Your task to perform on an android device: What's a good restaurant in San Jose? Image 0: 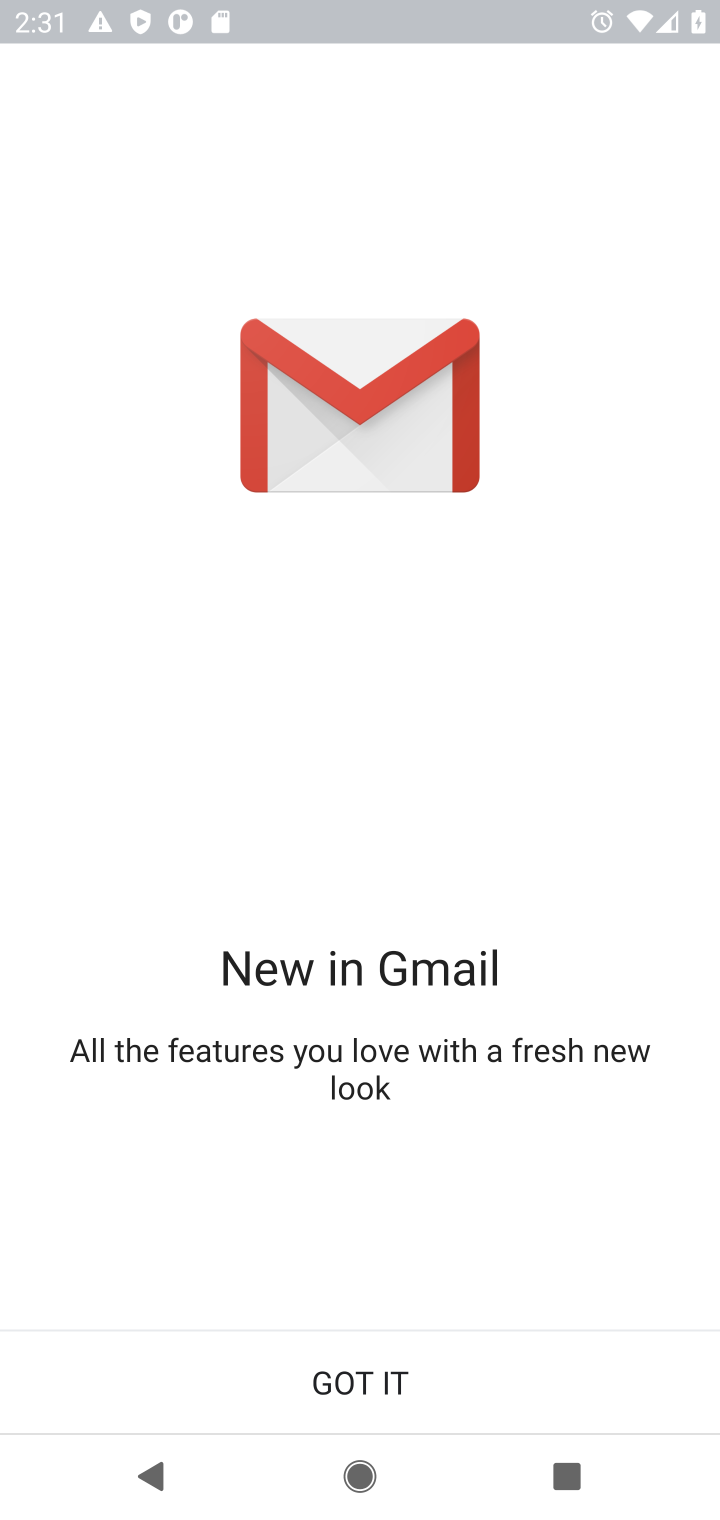
Step 0: press home button
Your task to perform on an android device: What's a good restaurant in San Jose? Image 1: 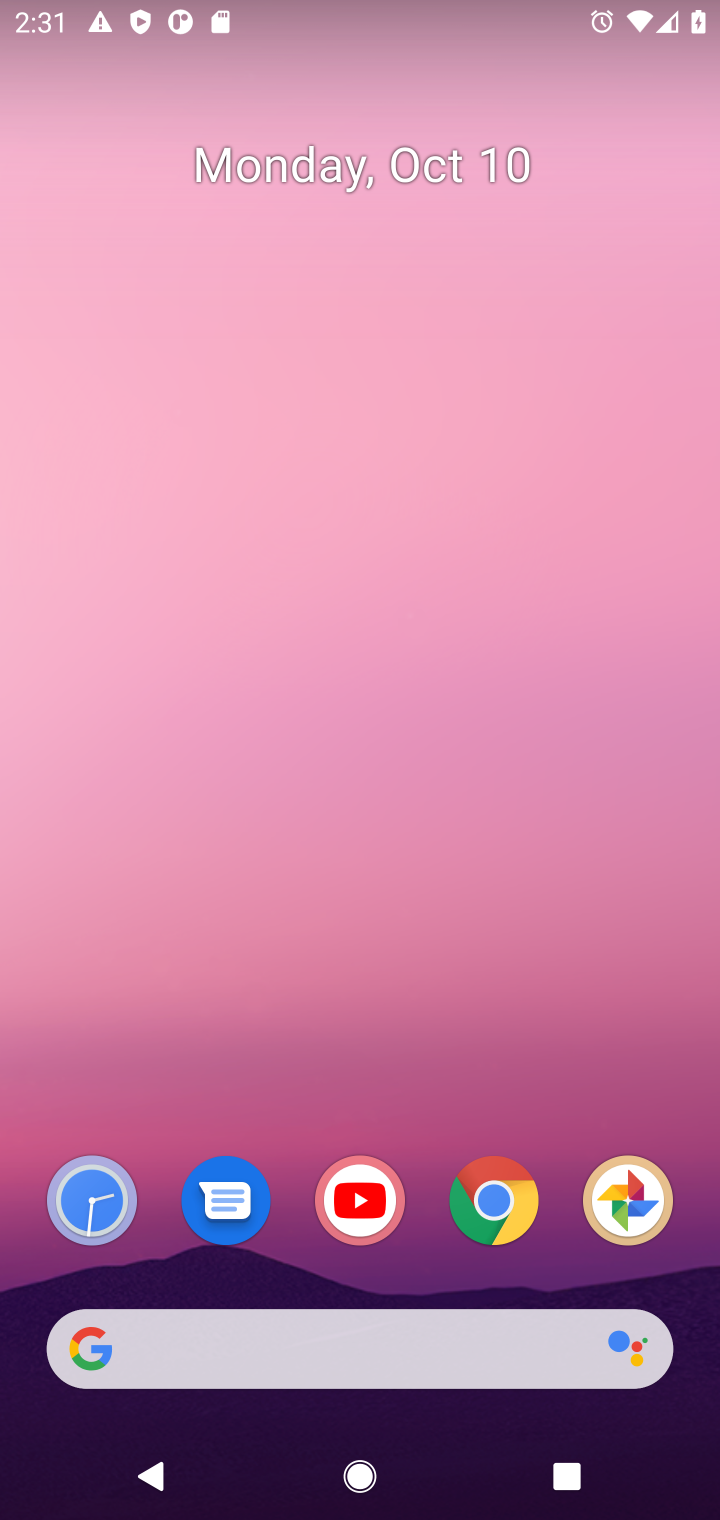
Step 1: click (506, 1189)
Your task to perform on an android device: What's a good restaurant in San Jose? Image 2: 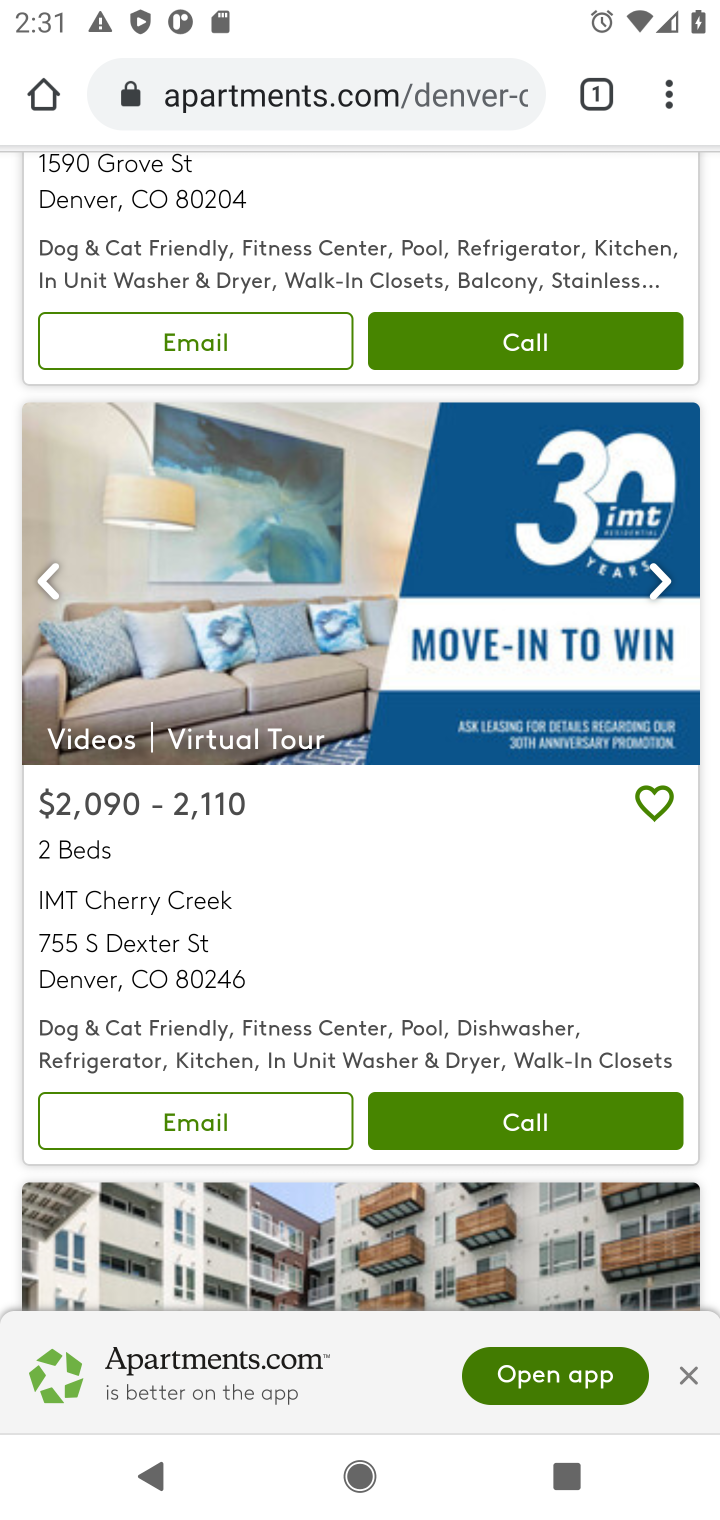
Step 2: click (275, 90)
Your task to perform on an android device: What's a good restaurant in San Jose? Image 3: 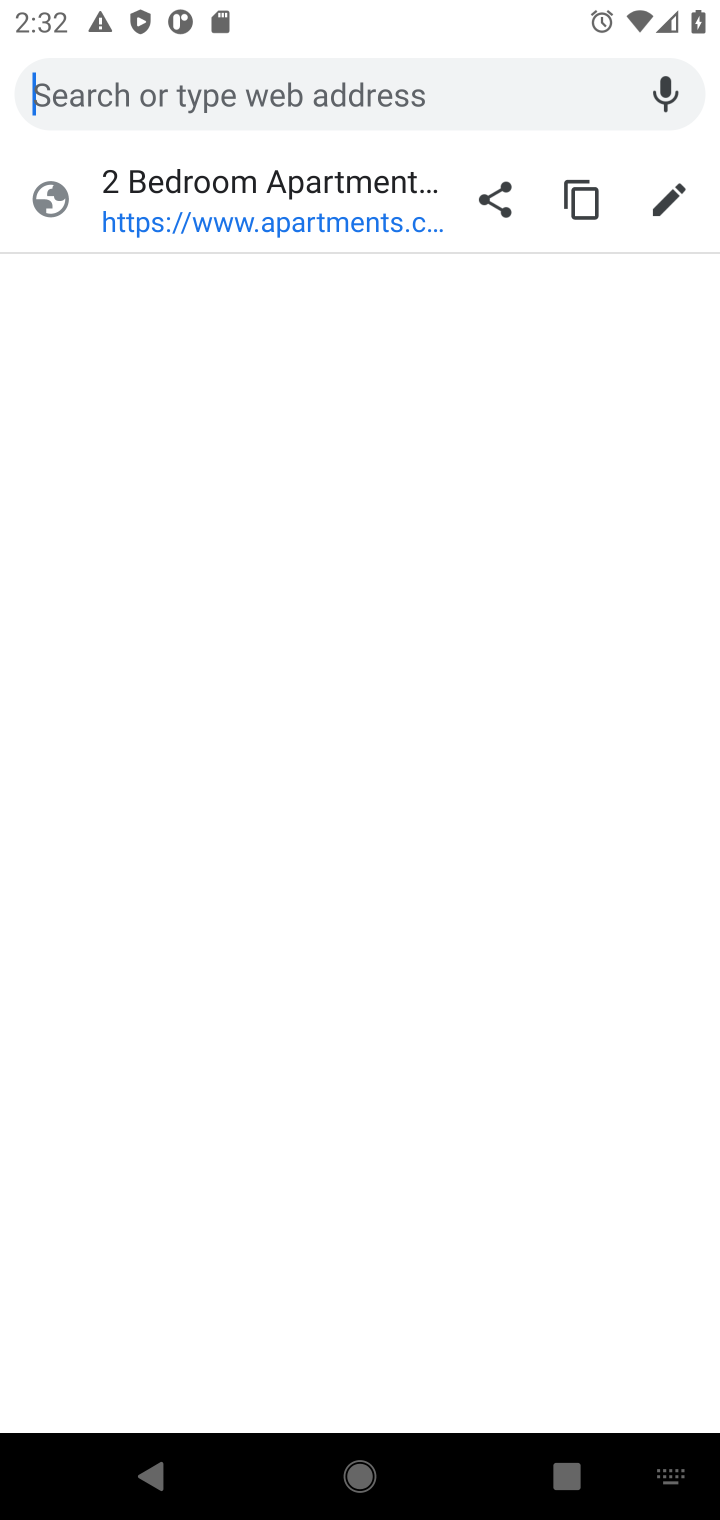
Step 3: type "good restaurant in San Jose"
Your task to perform on an android device: What's a good restaurant in San Jose? Image 4: 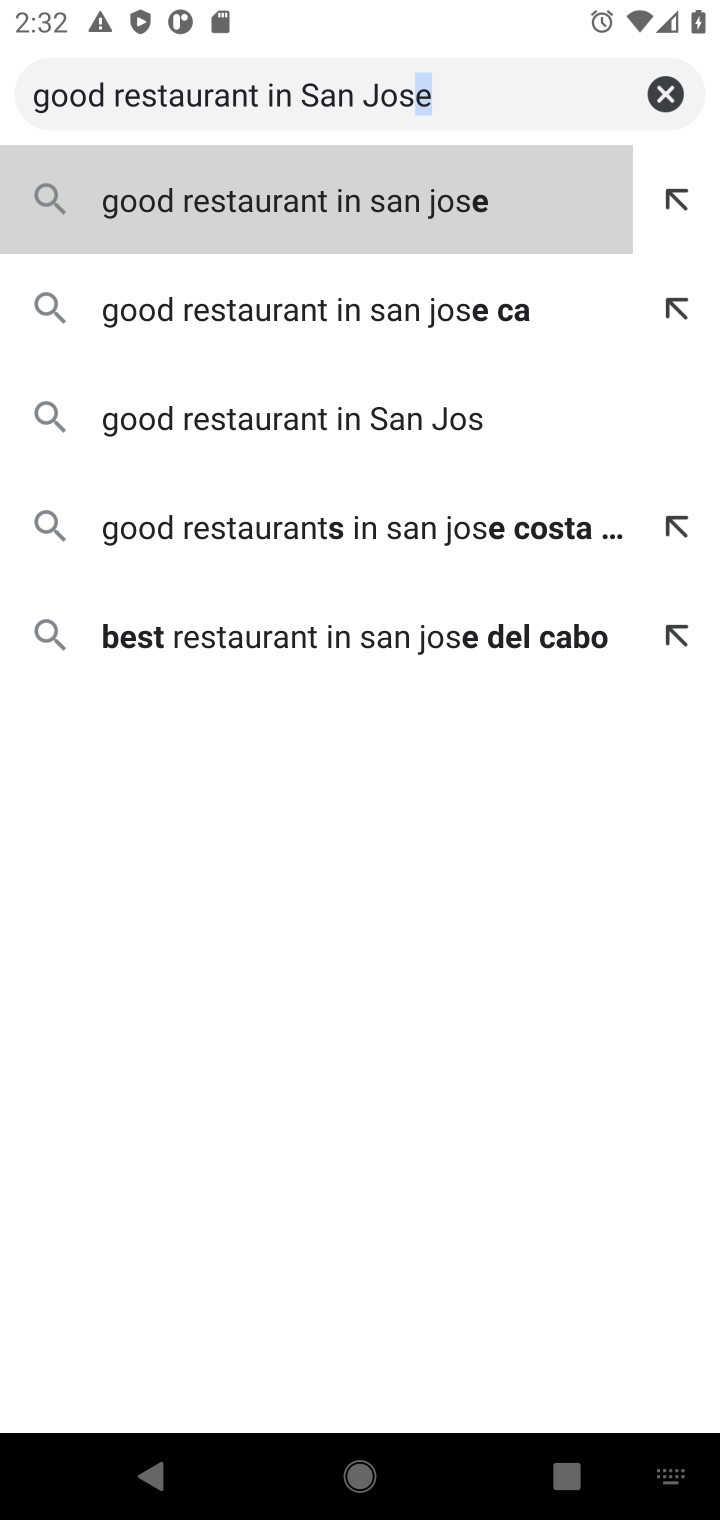
Step 4: type ""
Your task to perform on an android device: What's a good restaurant in San Jose? Image 5: 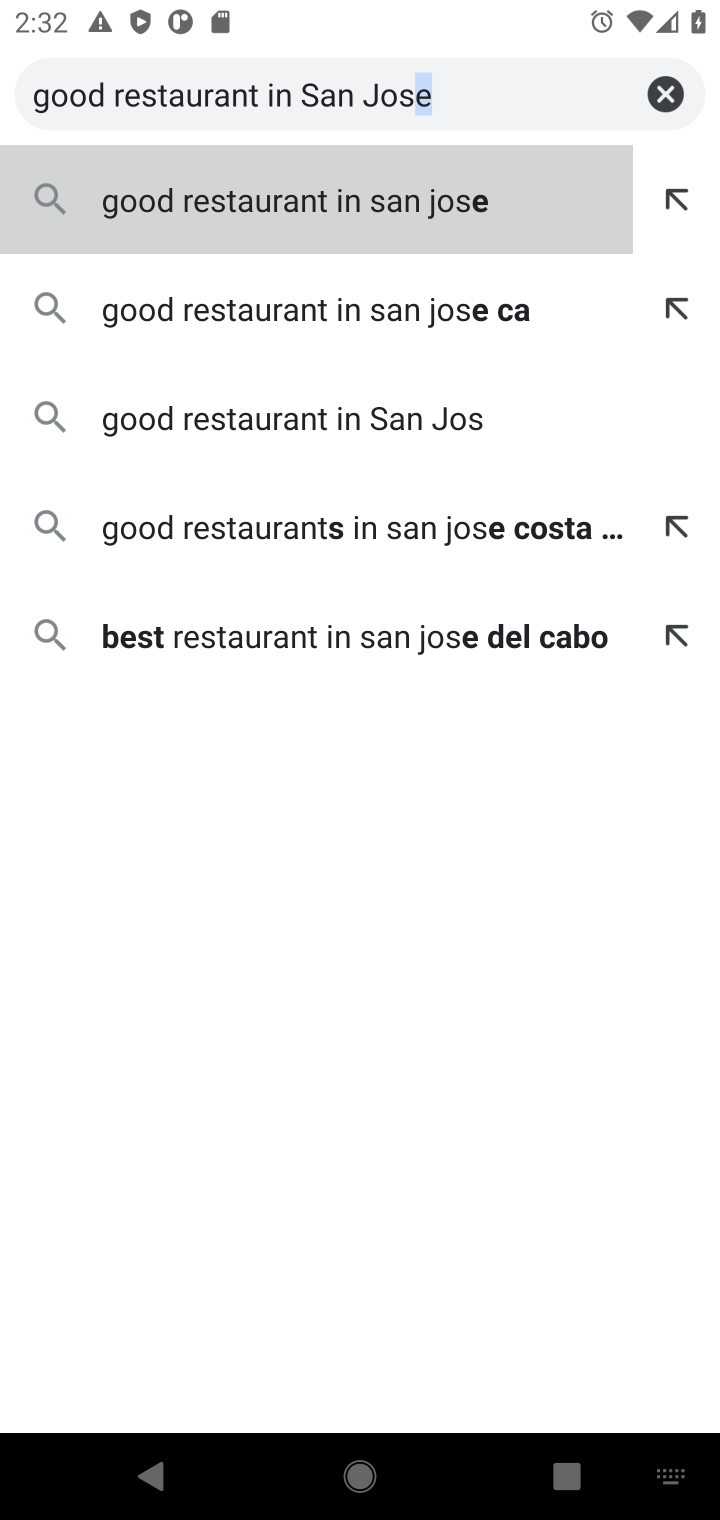
Step 5: click (462, 208)
Your task to perform on an android device: What's a good restaurant in San Jose? Image 6: 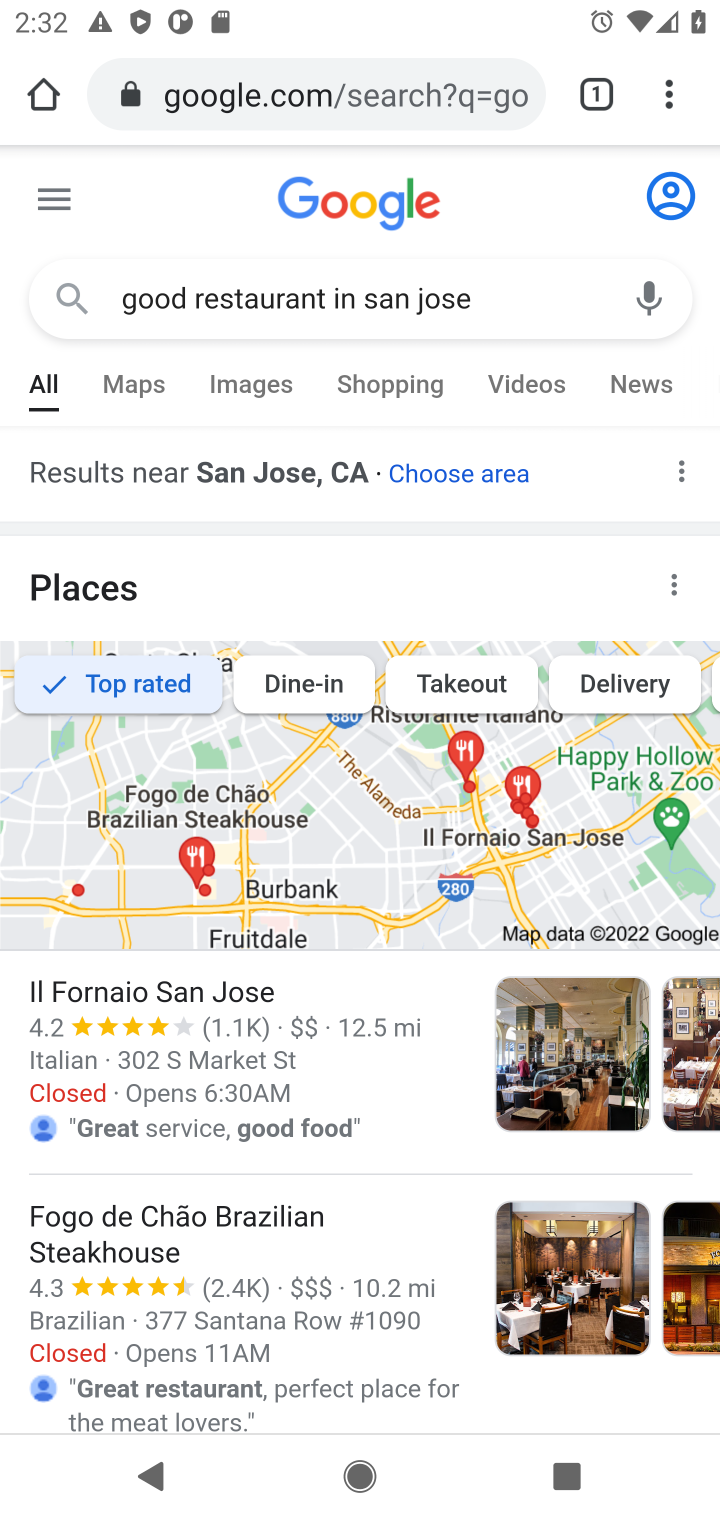
Step 6: drag from (301, 1269) to (258, 181)
Your task to perform on an android device: What's a good restaurant in San Jose? Image 7: 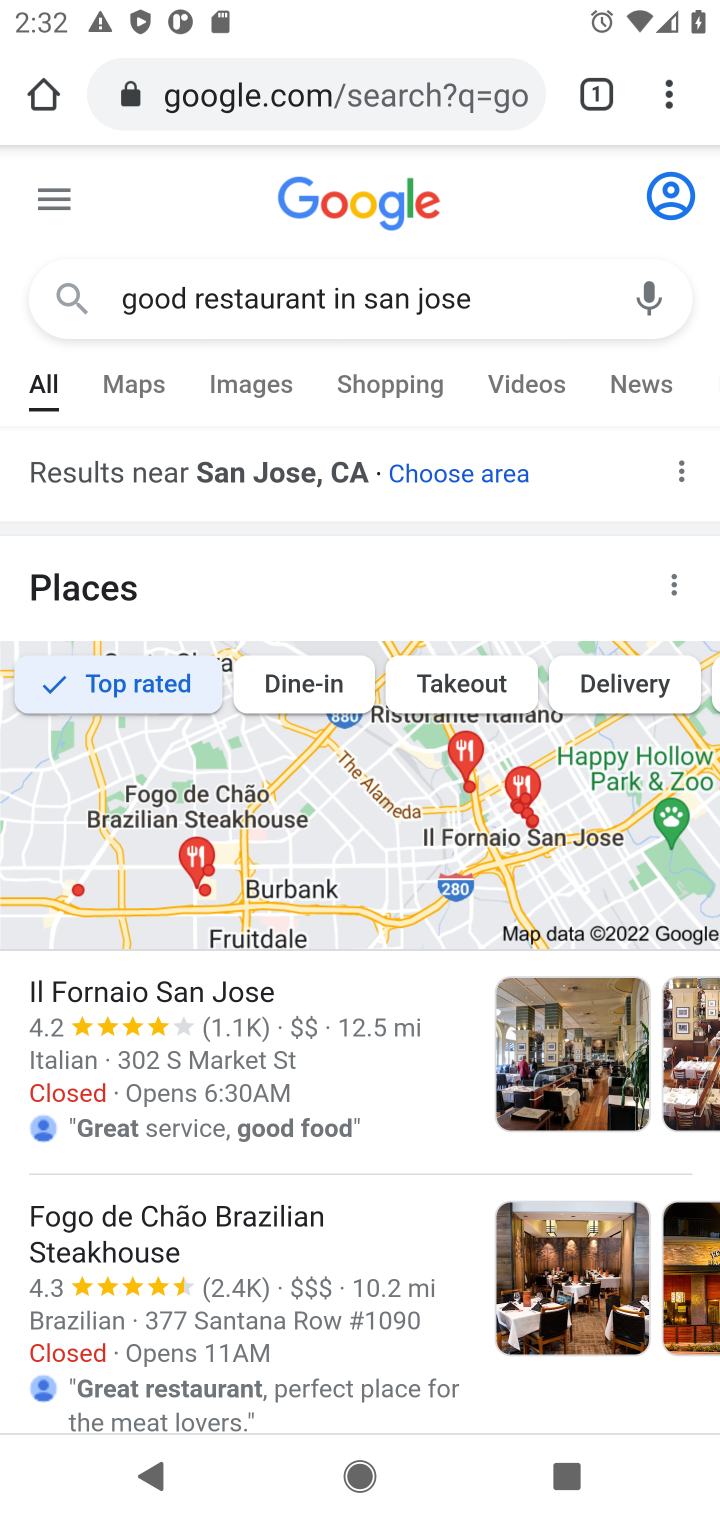
Step 7: drag from (370, 1409) to (377, 661)
Your task to perform on an android device: What's a good restaurant in San Jose? Image 8: 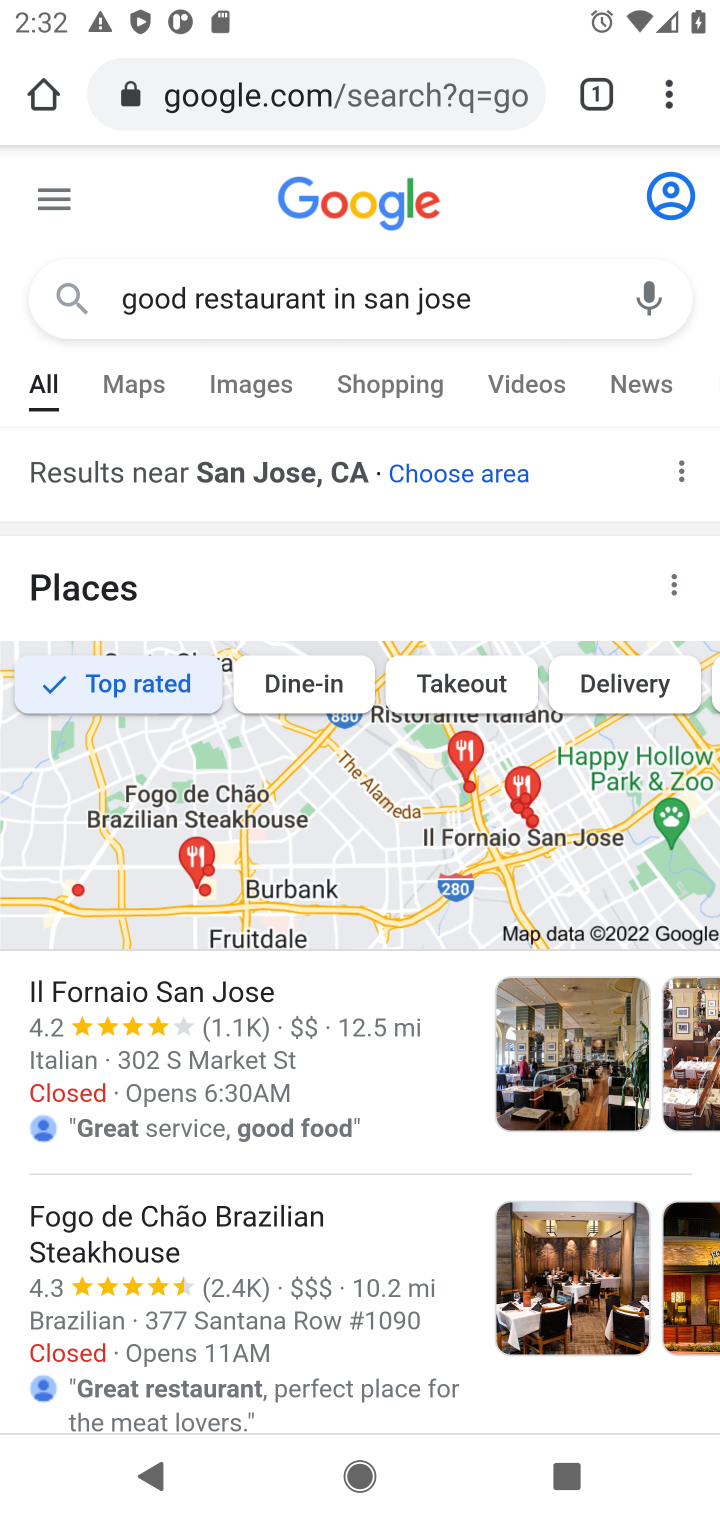
Step 8: drag from (465, 1111) to (589, 608)
Your task to perform on an android device: What's a good restaurant in San Jose? Image 9: 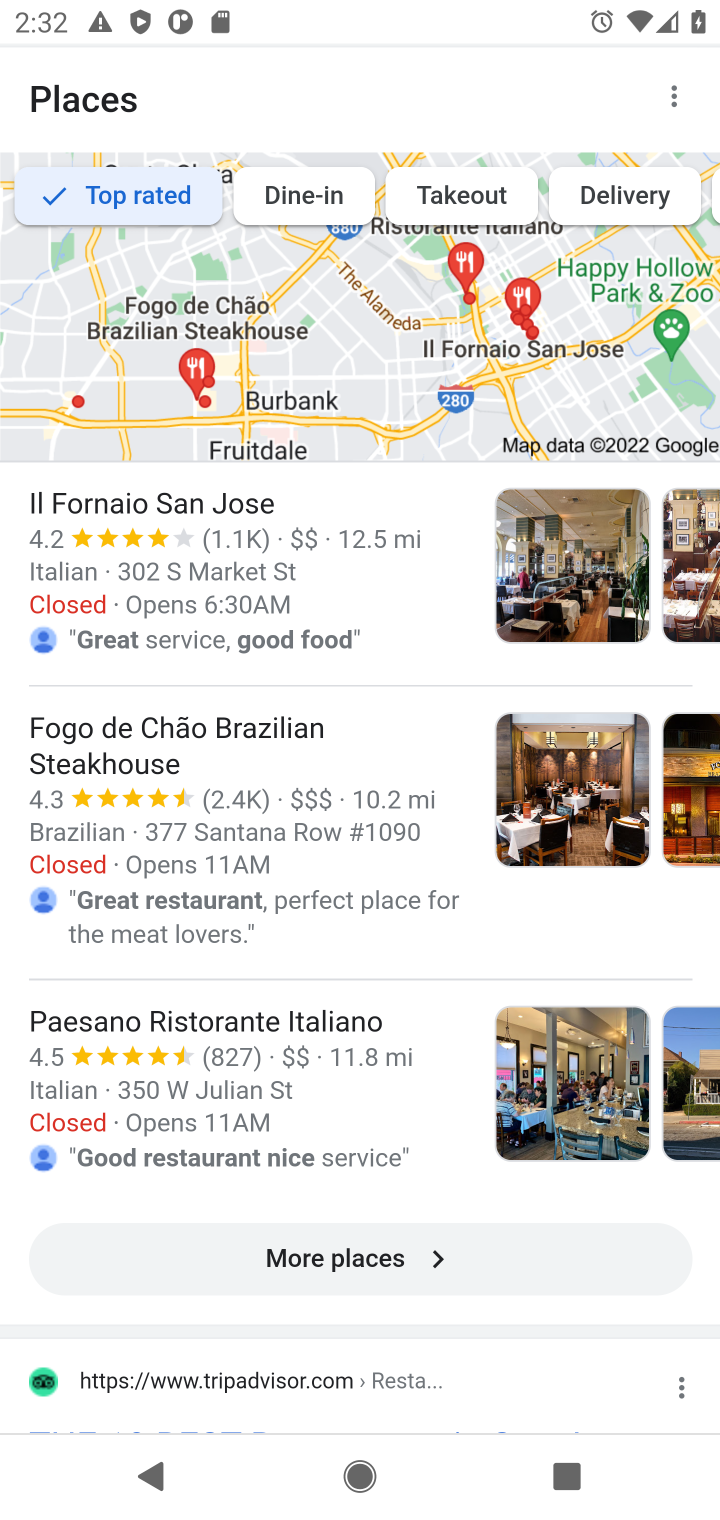
Step 9: click (318, 1262)
Your task to perform on an android device: What's a good restaurant in San Jose? Image 10: 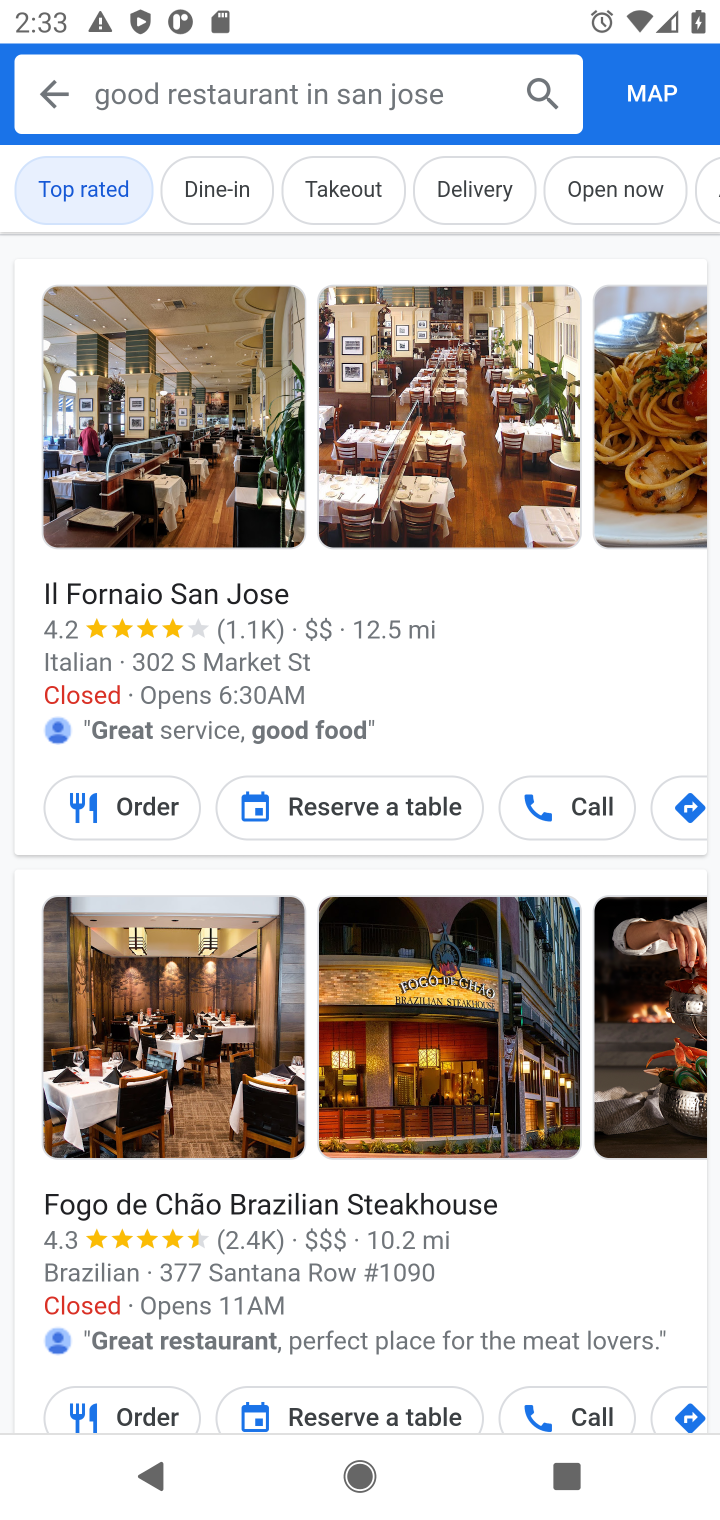
Step 10: task complete